Your task to perform on an android device: Show the shopping cart on costco. Add "razer blade" to the cart on costco, then select checkout. Image 0: 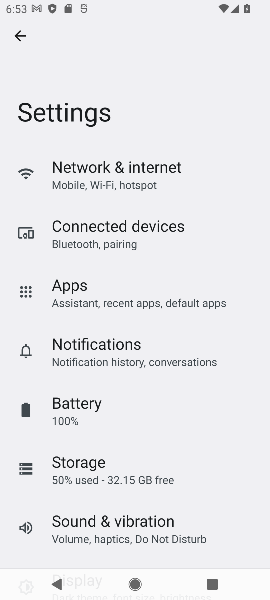
Step 0: press home button
Your task to perform on an android device: Show the shopping cart on costco. Add "razer blade" to the cart on costco, then select checkout. Image 1: 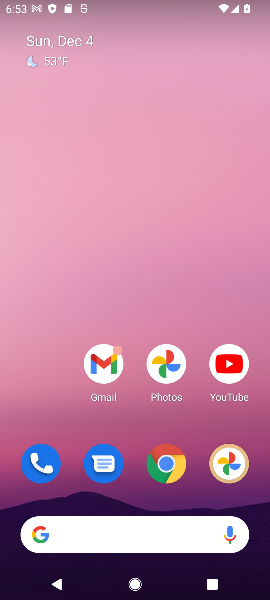
Step 1: click (137, 544)
Your task to perform on an android device: Show the shopping cart on costco. Add "razer blade" to the cart on costco, then select checkout. Image 2: 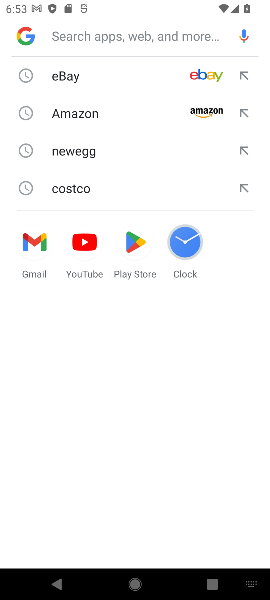
Step 2: type "costco.com"
Your task to perform on an android device: Show the shopping cart on costco. Add "razer blade" to the cart on costco, then select checkout. Image 3: 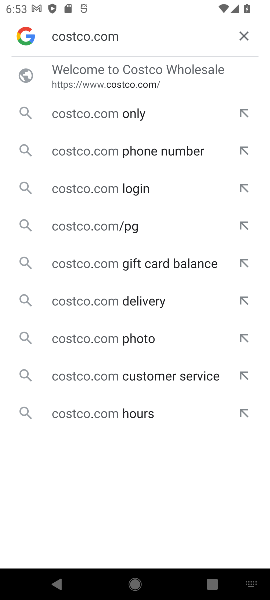
Step 3: click (145, 85)
Your task to perform on an android device: Show the shopping cart on costco. Add "razer blade" to the cart on costco, then select checkout. Image 4: 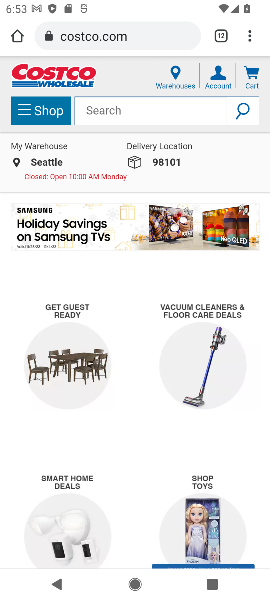
Step 4: task complete